Your task to perform on an android device: add a contact in the contacts app Image 0: 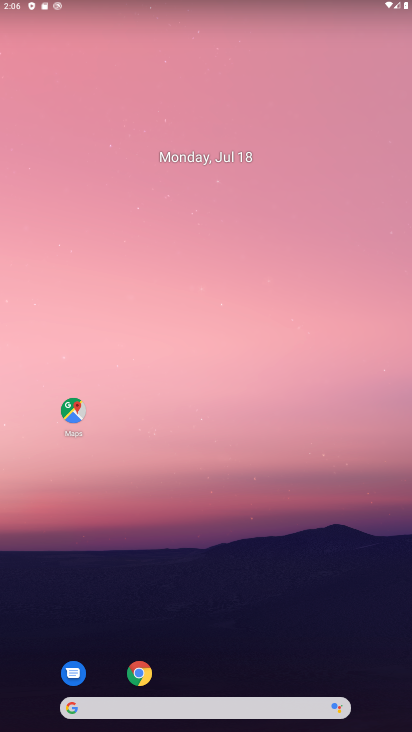
Step 0: drag from (268, 673) to (286, 28)
Your task to perform on an android device: add a contact in the contacts app Image 1: 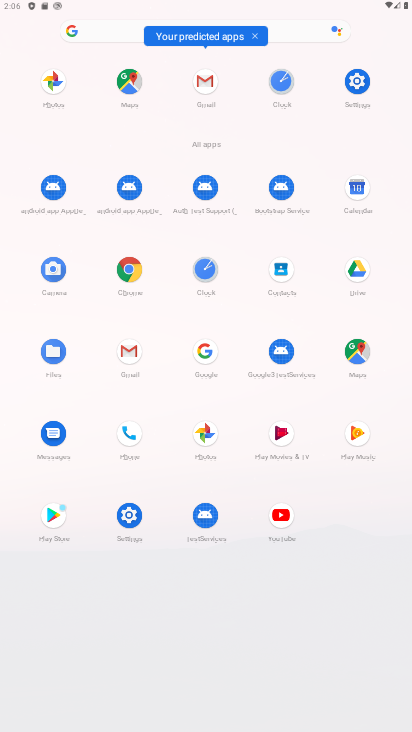
Step 1: click (291, 280)
Your task to perform on an android device: add a contact in the contacts app Image 2: 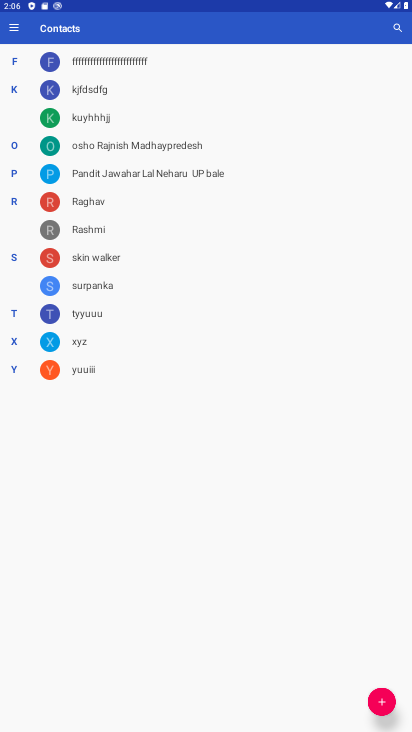
Step 2: click (387, 697)
Your task to perform on an android device: add a contact in the contacts app Image 3: 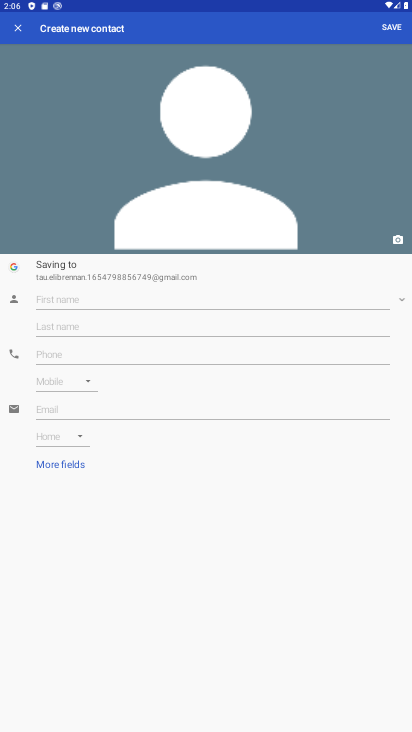
Step 3: type "pop"
Your task to perform on an android device: add a contact in the contacts app Image 4: 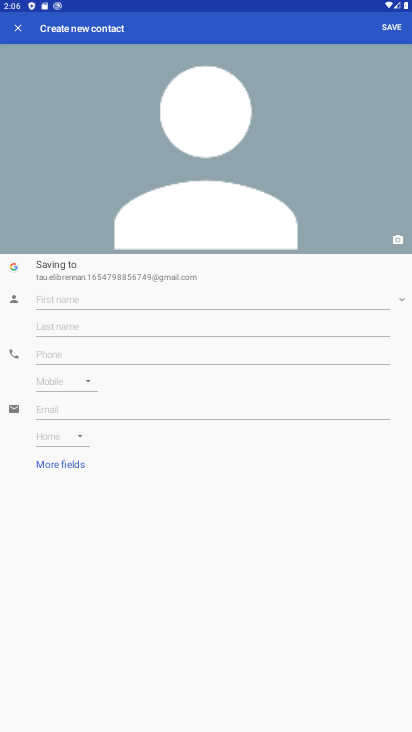
Step 4: click (109, 355)
Your task to perform on an android device: add a contact in the contacts app Image 5: 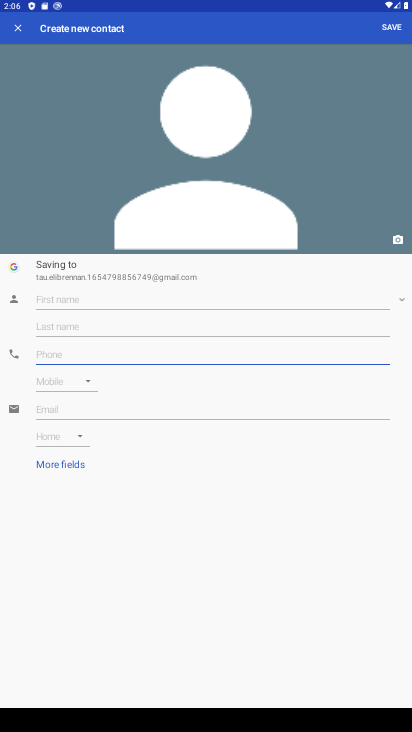
Step 5: click (111, 297)
Your task to perform on an android device: add a contact in the contacts app Image 6: 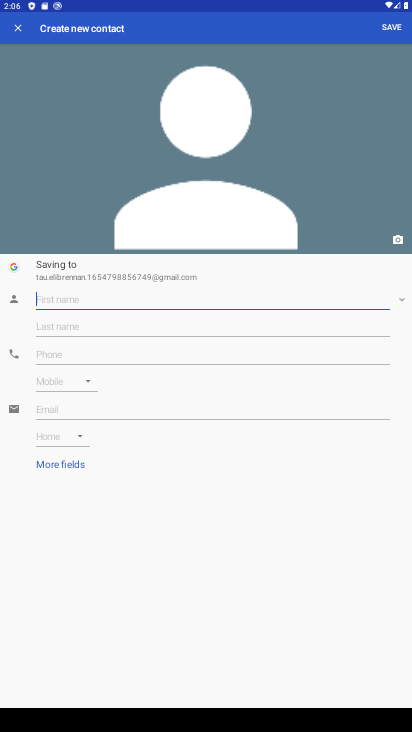
Step 6: type "poppp"
Your task to perform on an android device: add a contact in the contacts app Image 7: 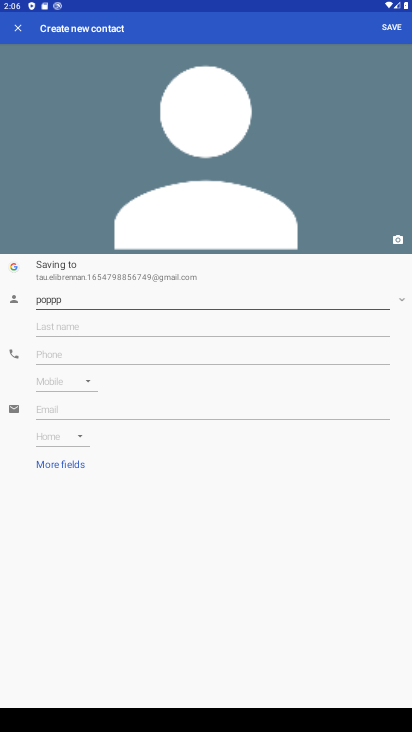
Step 7: click (66, 350)
Your task to perform on an android device: add a contact in the contacts app Image 8: 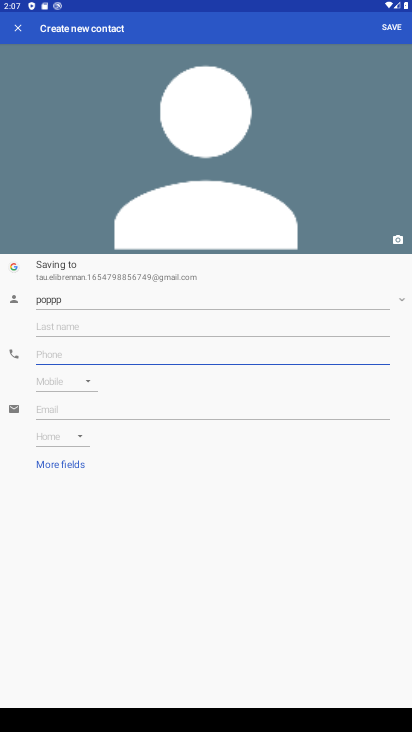
Step 8: type "877887877"
Your task to perform on an android device: add a contact in the contacts app Image 9: 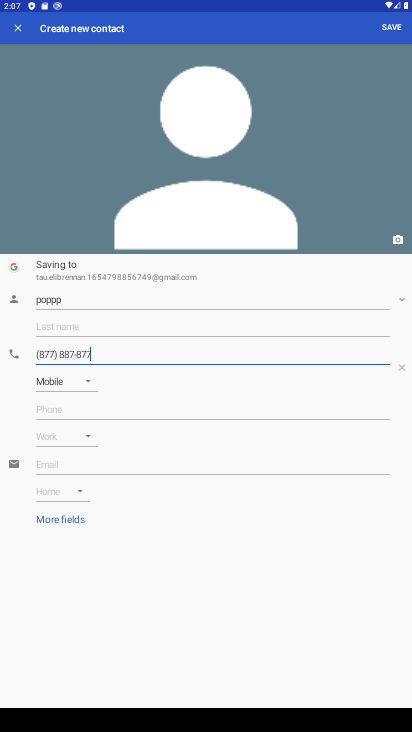
Step 9: click (401, 31)
Your task to perform on an android device: add a contact in the contacts app Image 10: 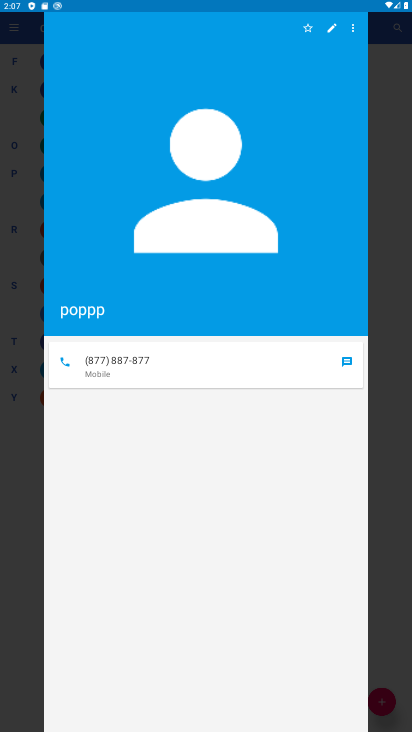
Step 10: task complete